Your task to perform on an android device: Go to notification settings Image 0: 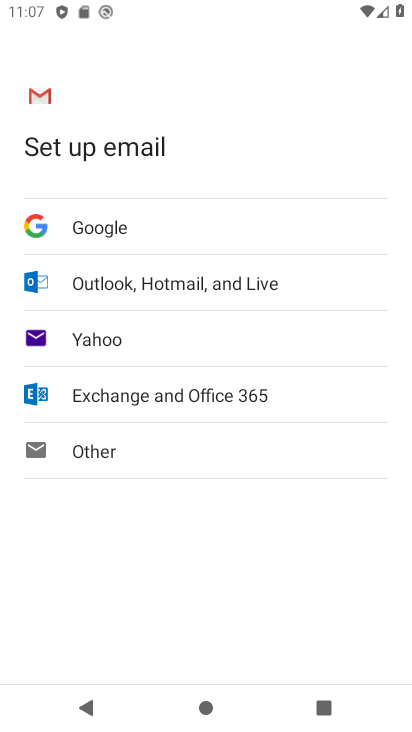
Step 0: press home button
Your task to perform on an android device: Go to notification settings Image 1: 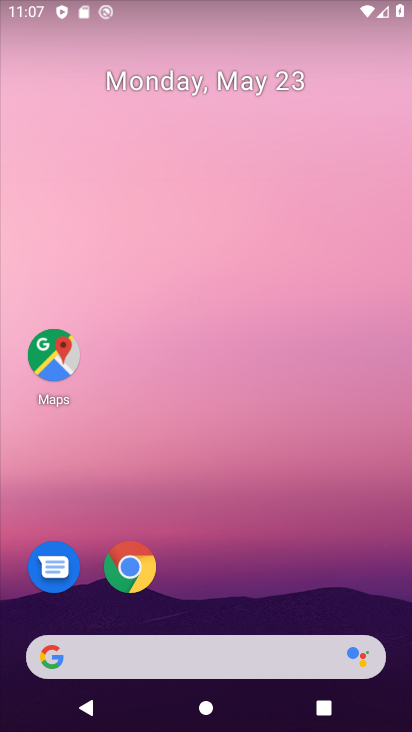
Step 1: drag from (331, 598) to (311, 160)
Your task to perform on an android device: Go to notification settings Image 2: 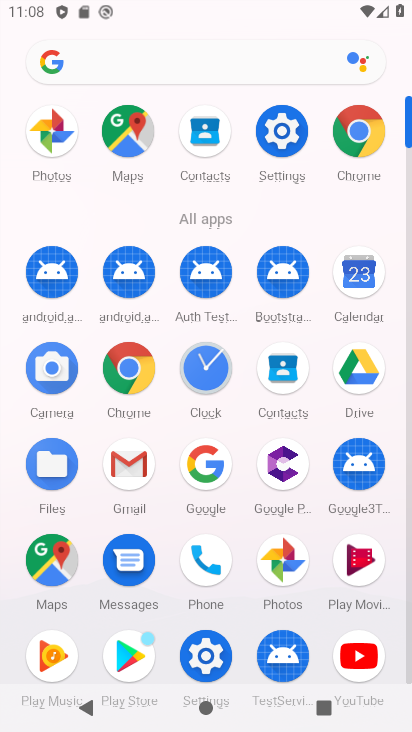
Step 2: click (287, 135)
Your task to perform on an android device: Go to notification settings Image 3: 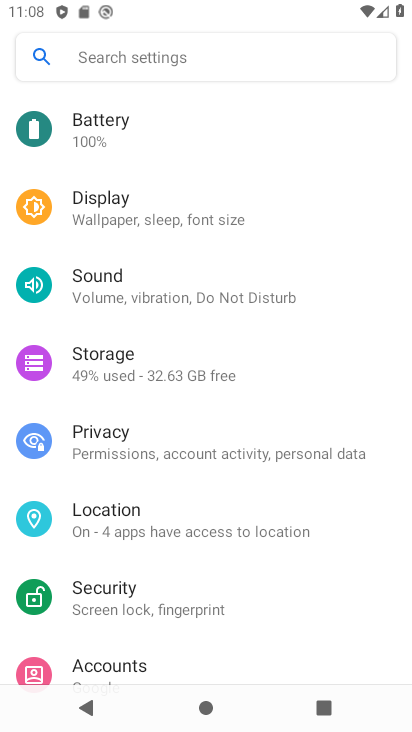
Step 3: drag from (241, 207) to (237, 682)
Your task to perform on an android device: Go to notification settings Image 4: 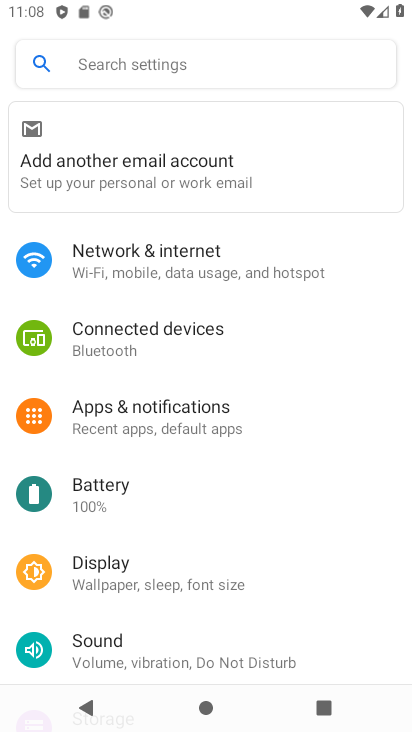
Step 4: click (147, 421)
Your task to perform on an android device: Go to notification settings Image 5: 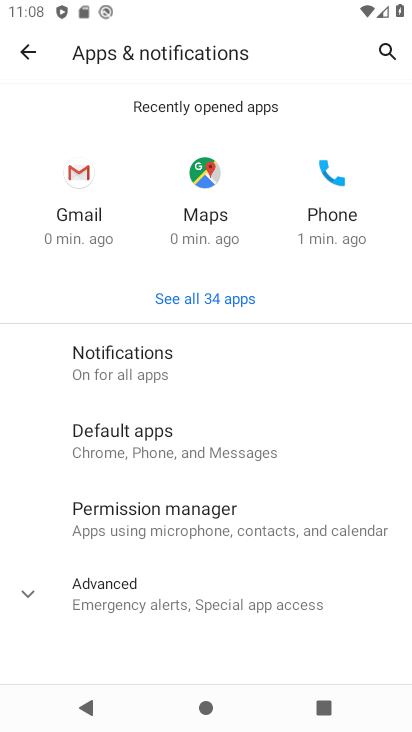
Step 5: click (127, 347)
Your task to perform on an android device: Go to notification settings Image 6: 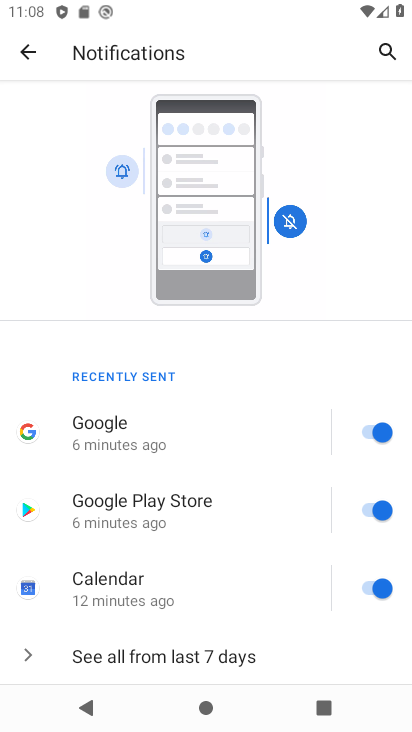
Step 6: task complete